Your task to perform on an android device: turn off sleep mode Image 0: 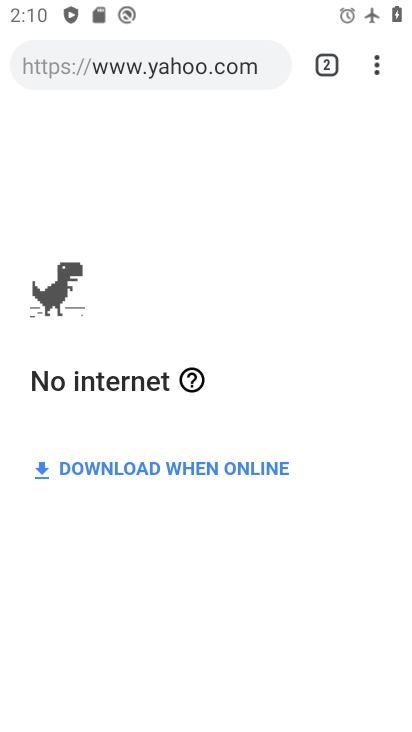
Step 0: press home button
Your task to perform on an android device: turn off sleep mode Image 1: 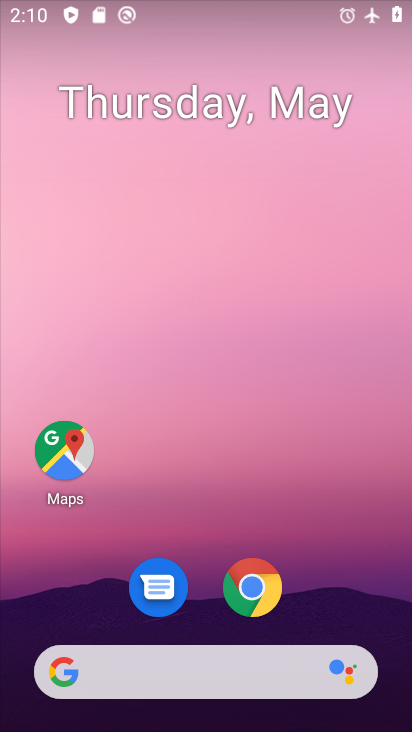
Step 1: drag from (304, 489) to (214, 104)
Your task to perform on an android device: turn off sleep mode Image 2: 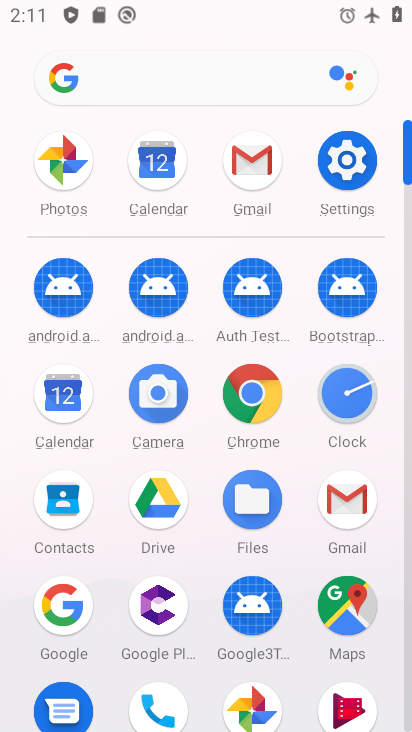
Step 2: click (342, 164)
Your task to perform on an android device: turn off sleep mode Image 3: 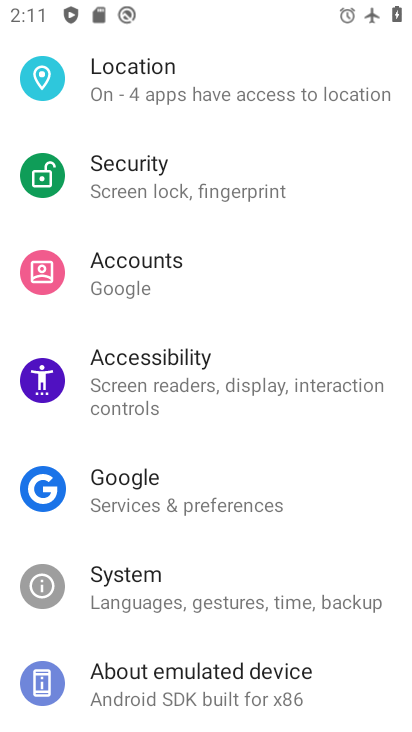
Step 3: drag from (189, 418) to (89, 166)
Your task to perform on an android device: turn off sleep mode Image 4: 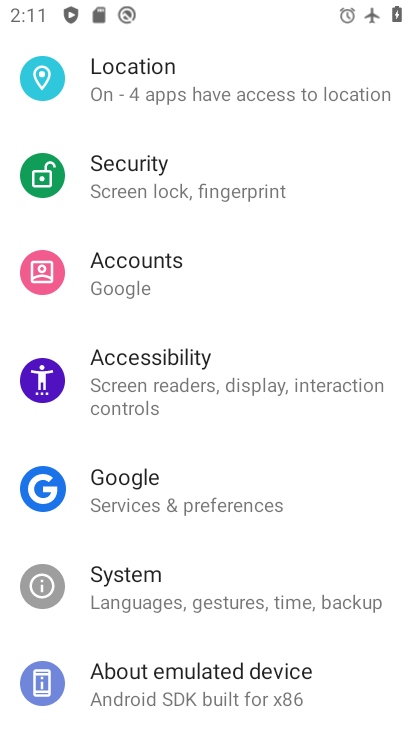
Step 4: drag from (197, 278) to (197, 562)
Your task to perform on an android device: turn off sleep mode Image 5: 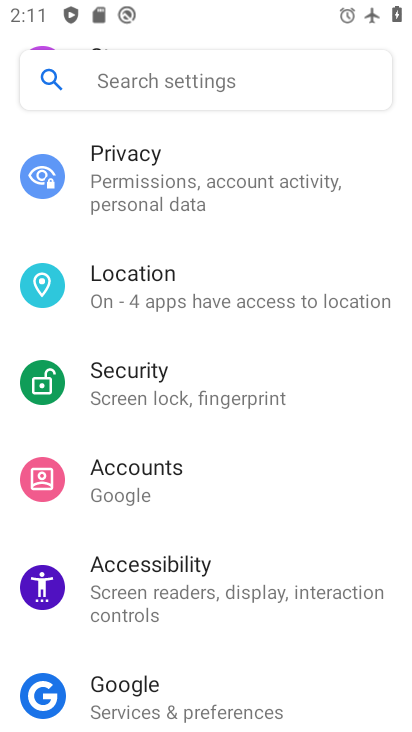
Step 5: drag from (156, 220) to (215, 519)
Your task to perform on an android device: turn off sleep mode Image 6: 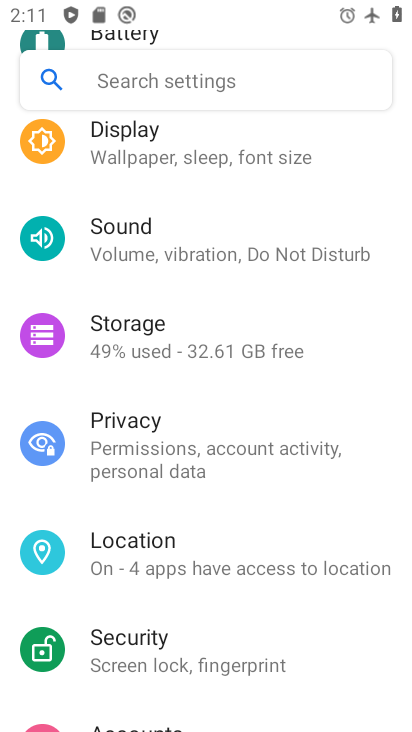
Step 6: drag from (165, 196) to (175, 484)
Your task to perform on an android device: turn off sleep mode Image 7: 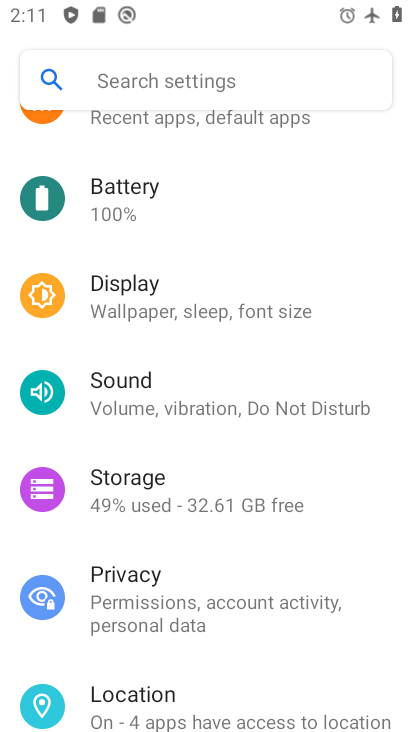
Step 7: click (175, 484)
Your task to perform on an android device: turn off sleep mode Image 8: 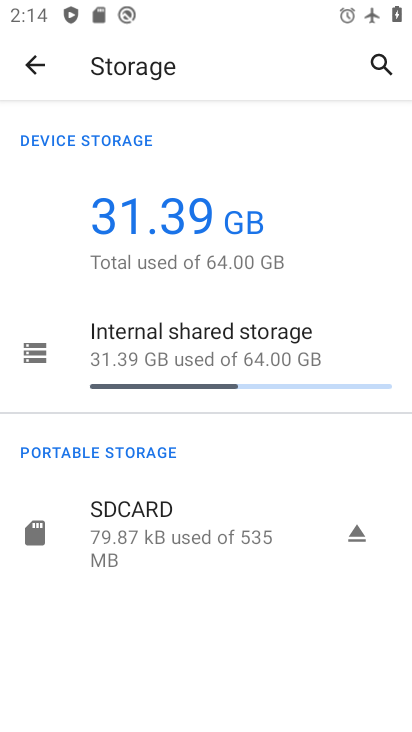
Step 8: task complete